Your task to perform on an android device: Is it going to rain tomorrow? Image 0: 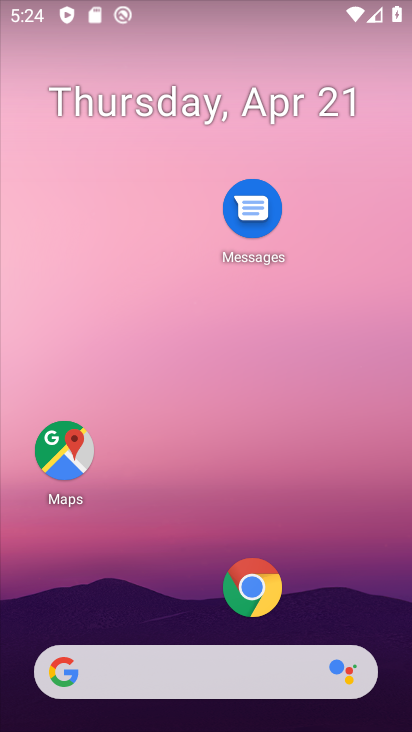
Step 0: drag from (5, 314) to (409, 270)
Your task to perform on an android device: Is it going to rain tomorrow? Image 1: 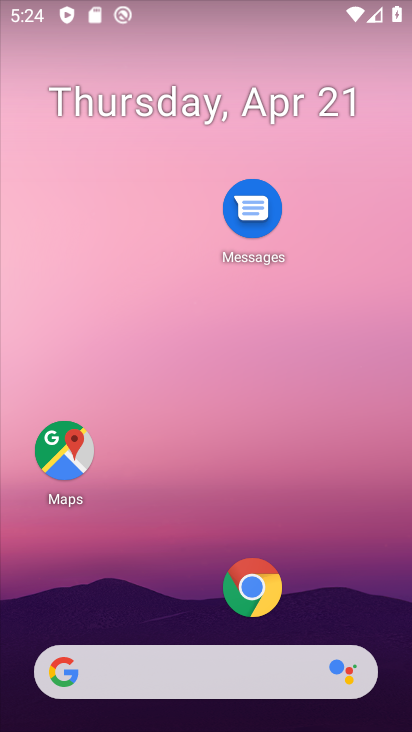
Step 1: task complete